Your task to perform on an android device: Open the map Image 0: 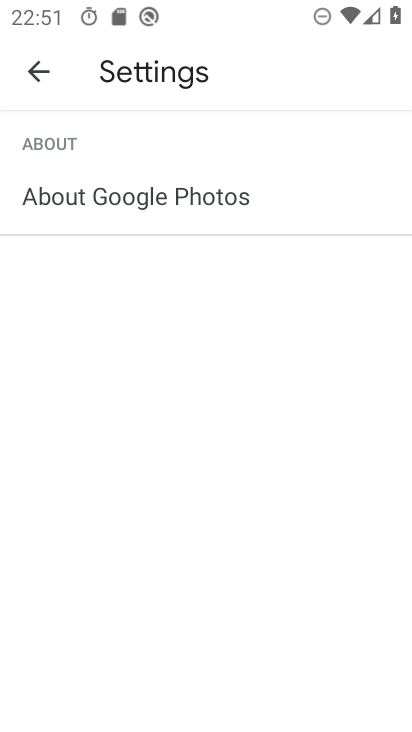
Step 0: press home button
Your task to perform on an android device: Open the map Image 1: 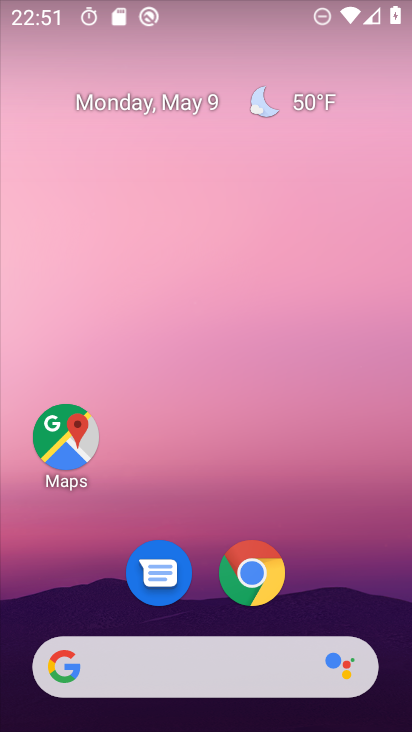
Step 1: click (56, 434)
Your task to perform on an android device: Open the map Image 2: 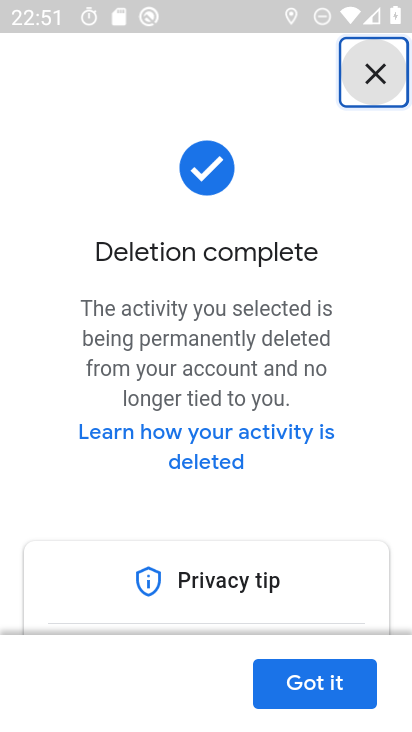
Step 2: click (341, 682)
Your task to perform on an android device: Open the map Image 3: 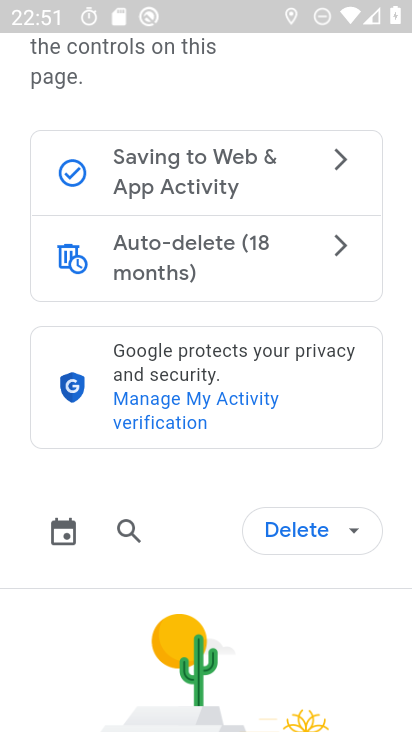
Step 3: task complete